Your task to perform on an android device: change keyboard looks Image 0: 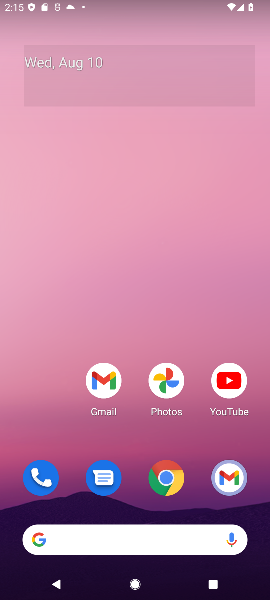
Step 0: drag from (61, 326) to (135, 54)
Your task to perform on an android device: change keyboard looks Image 1: 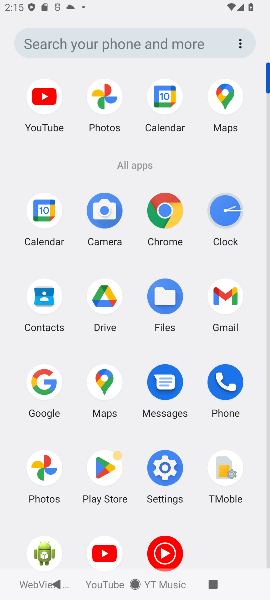
Step 1: click (161, 473)
Your task to perform on an android device: change keyboard looks Image 2: 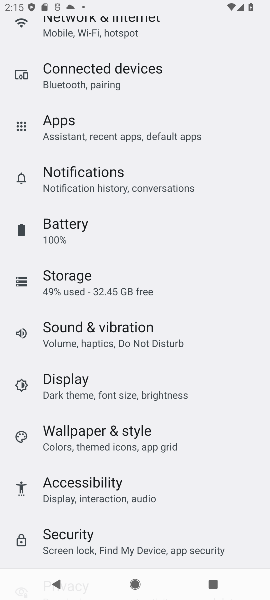
Step 2: task complete